Your task to perform on an android device: Find coffee shops on Maps Image 0: 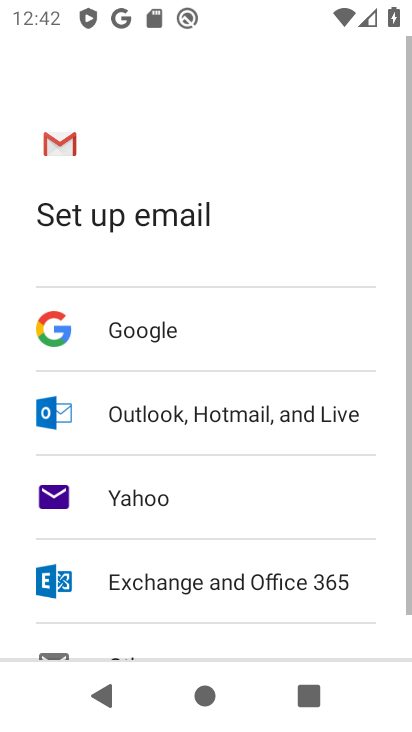
Step 0: press home button
Your task to perform on an android device: Find coffee shops on Maps Image 1: 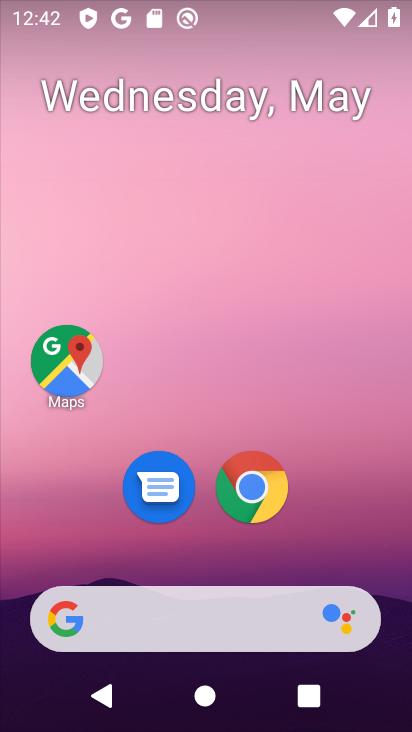
Step 1: click (82, 391)
Your task to perform on an android device: Find coffee shops on Maps Image 2: 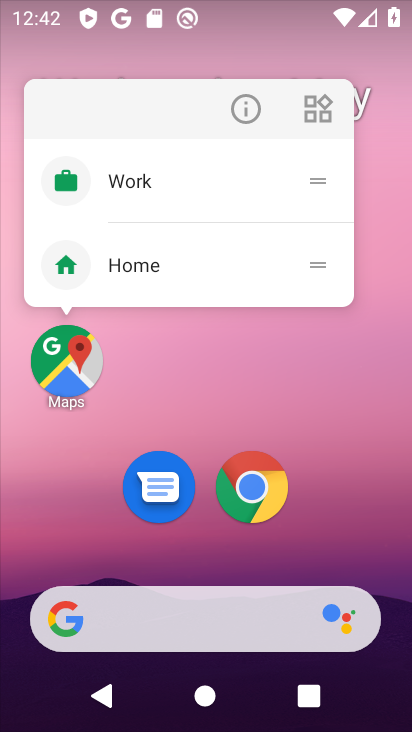
Step 2: click (70, 370)
Your task to perform on an android device: Find coffee shops on Maps Image 3: 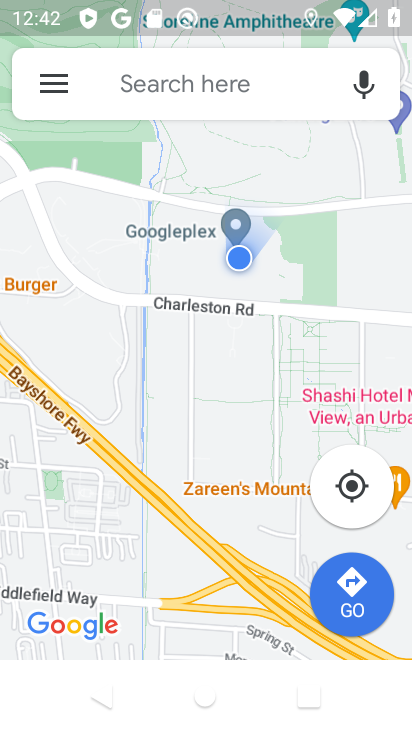
Step 3: click (185, 88)
Your task to perform on an android device: Find coffee shops on Maps Image 4: 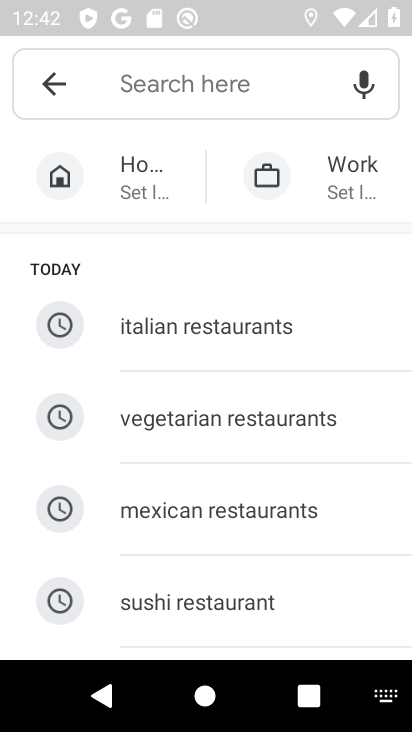
Step 4: type "coffee shops"
Your task to perform on an android device: Find coffee shops on Maps Image 5: 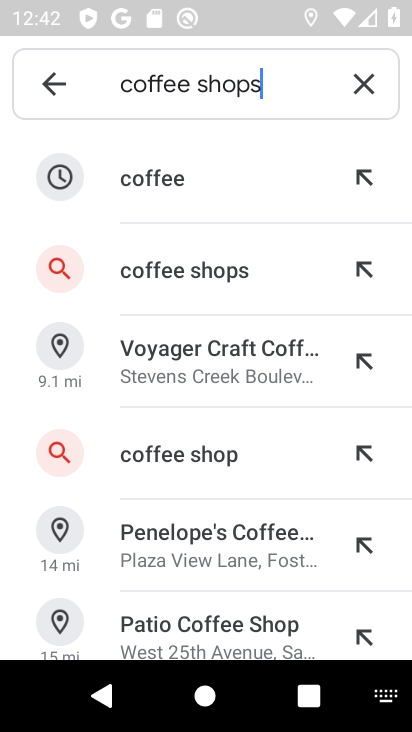
Step 5: click (183, 275)
Your task to perform on an android device: Find coffee shops on Maps Image 6: 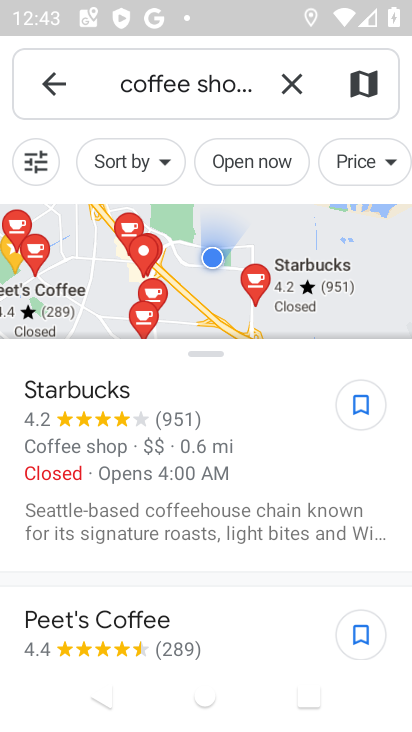
Step 6: task complete